Your task to perform on an android device: Open Android settings Image 0: 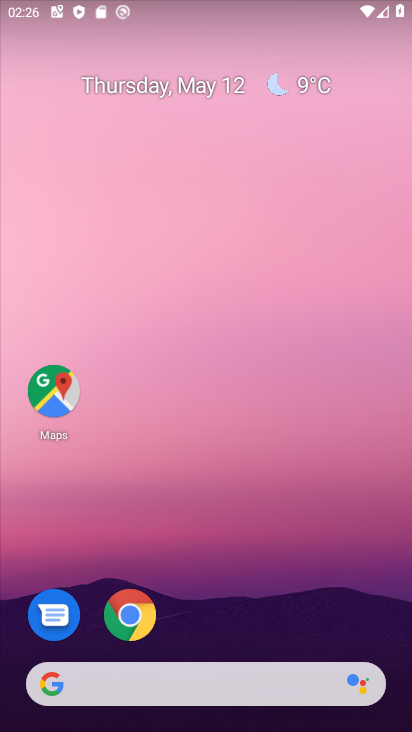
Step 0: drag from (192, 683) to (160, 285)
Your task to perform on an android device: Open Android settings Image 1: 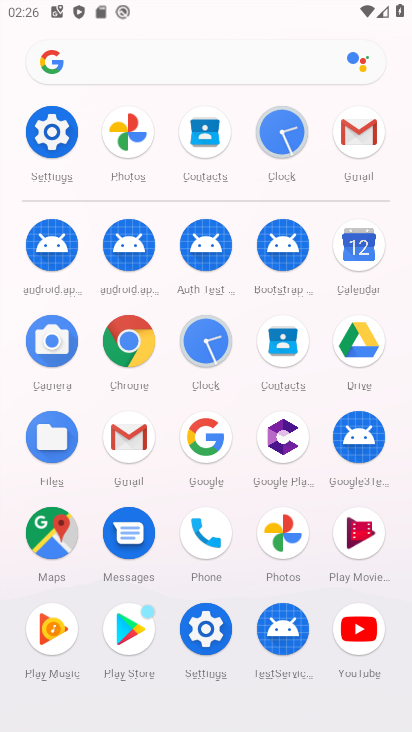
Step 1: click (67, 136)
Your task to perform on an android device: Open Android settings Image 2: 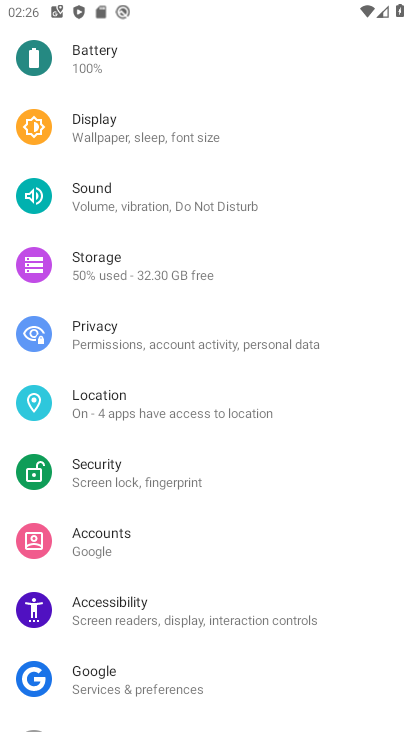
Step 2: drag from (133, 554) to (151, 315)
Your task to perform on an android device: Open Android settings Image 3: 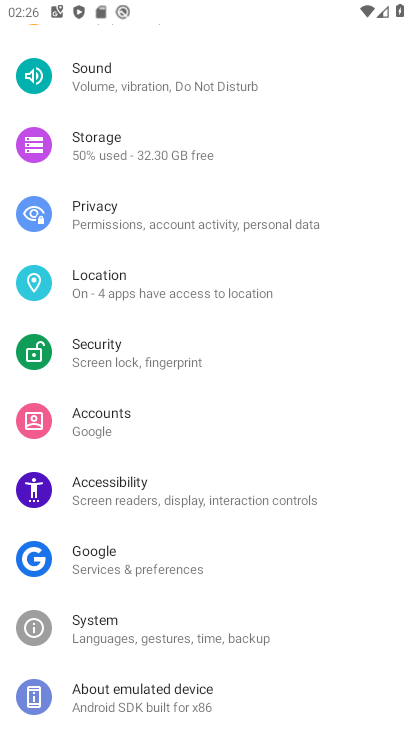
Step 3: click (184, 695)
Your task to perform on an android device: Open Android settings Image 4: 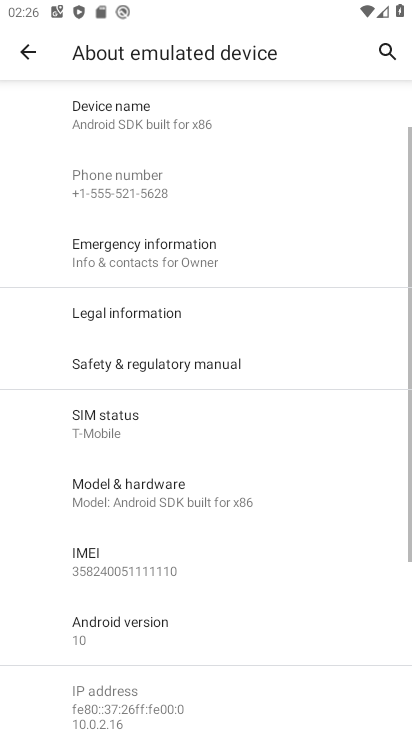
Step 4: task complete